Your task to perform on an android device: clear all cookies in the chrome app Image 0: 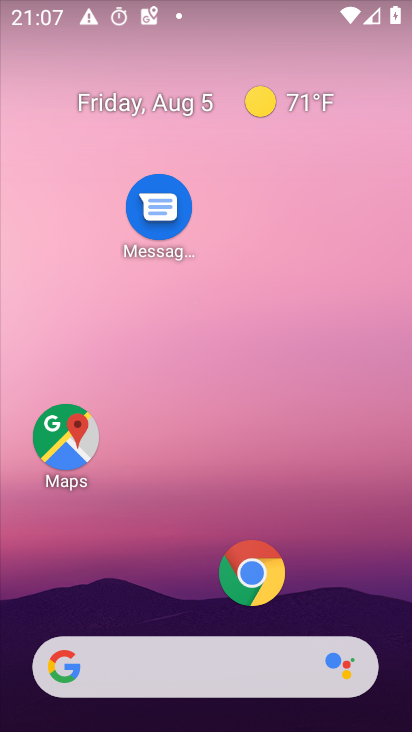
Step 0: press home button
Your task to perform on an android device: clear all cookies in the chrome app Image 1: 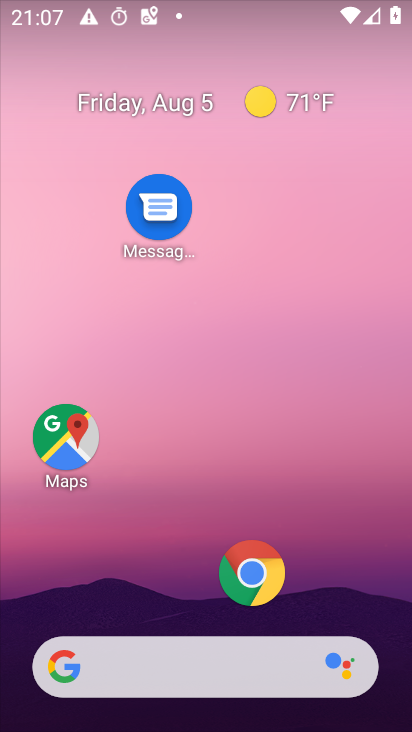
Step 1: drag from (195, 603) to (245, 16)
Your task to perform on an android device: clear all cookies in the chrome app Image 2: 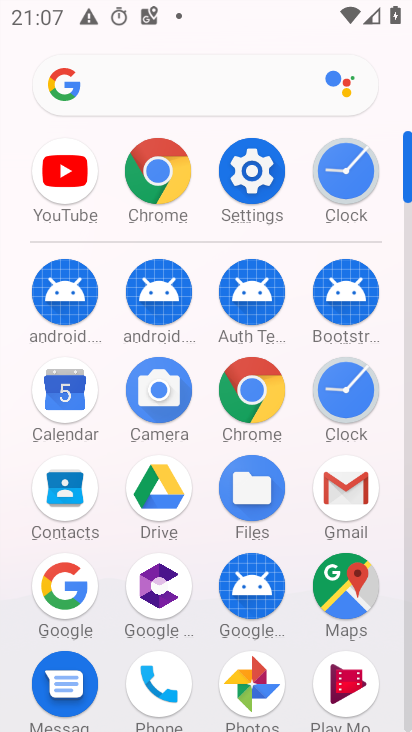
Step 2: click (151, 163)
Your task to perform on an android device: clear all cookies in the chrome app Image 3: 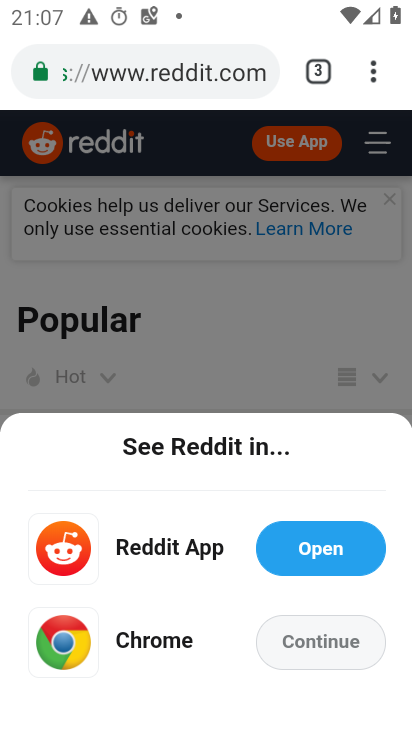
Step 3: click (324, 645)
Your task to perform on an android device: clear all cookies in the chrome app Image 4: 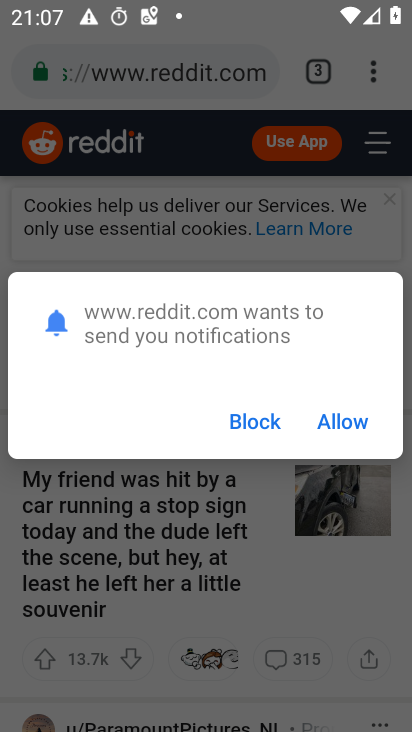
Step 4: click (346, 425)
Your task to perform on an android device: clear all cookies in the chrome app Image 5: 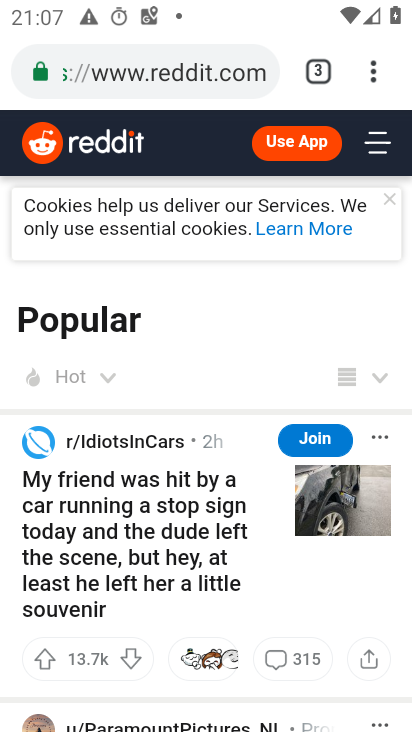
Step 5: click (370, 66)
Your task to perform on an android device: clear all cookies in the chrome app Image 6: 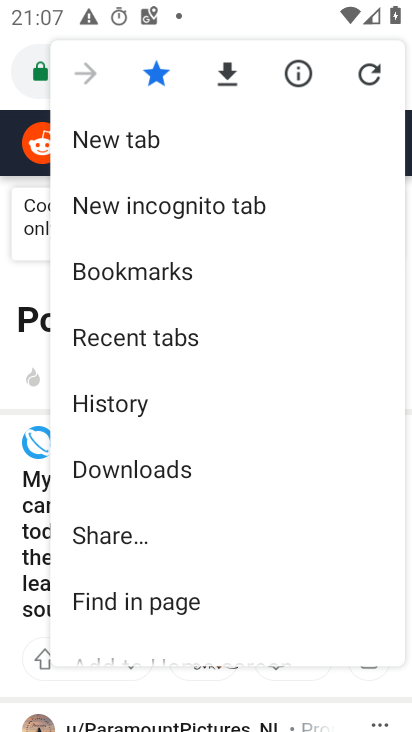
Step 6: click (155, 398)
Your task to perform on an android device: clear all cookies in the chrome app Image 7: 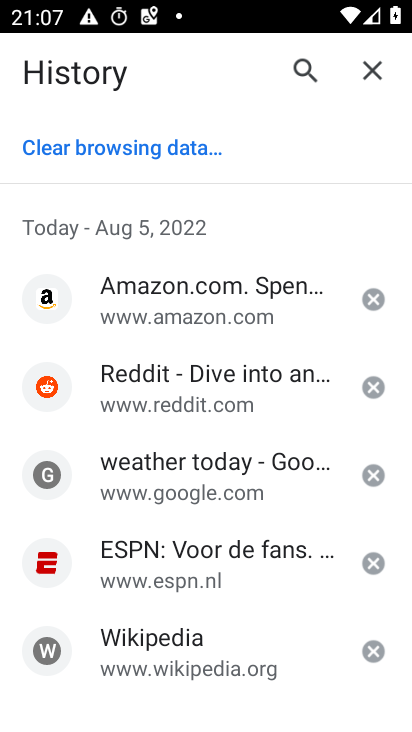
Step 7: click (134, 147)
Your task to perform on an android device: clear all cookies in the chrome app Image 8: 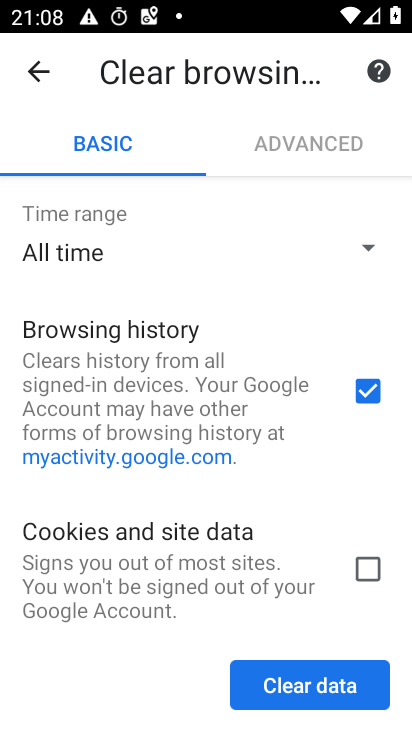
Step 8: click (369, 390)
Your task to perform on an android device: clear all cookies in the chrome app Image 9: 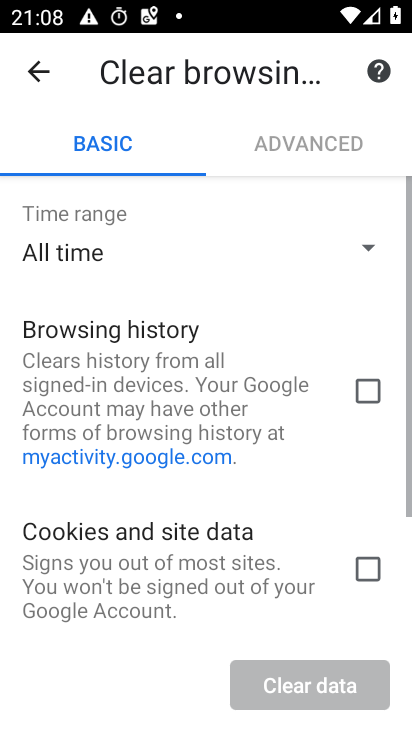
Step 9: click (366, 565)
Your task to perform on an android device: clear all cookies in the chrome app Image 10: 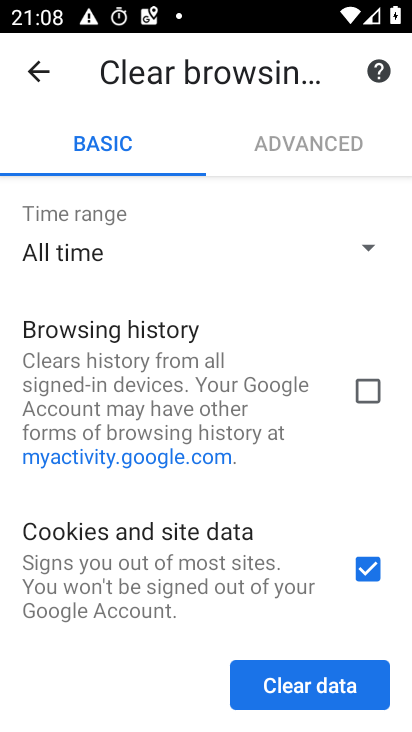
Step 10: click (312, 680)
Your task to perform on an android device: clear all cookies in the chrome app Image 11: 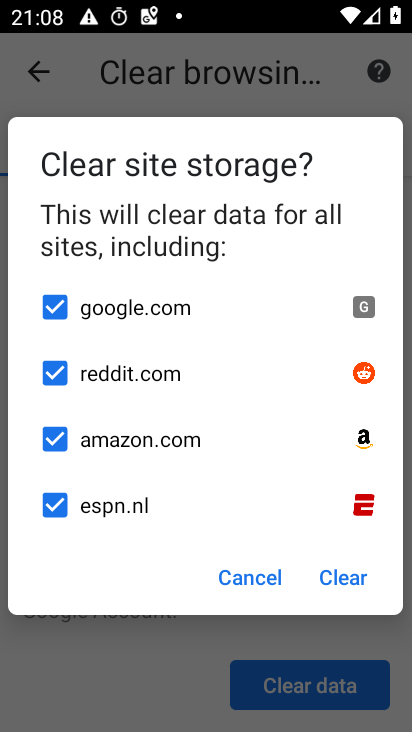
Step 11: click (342, 575)
Your task to perform on an android device: clear all cookies in the chrome app Image 12: 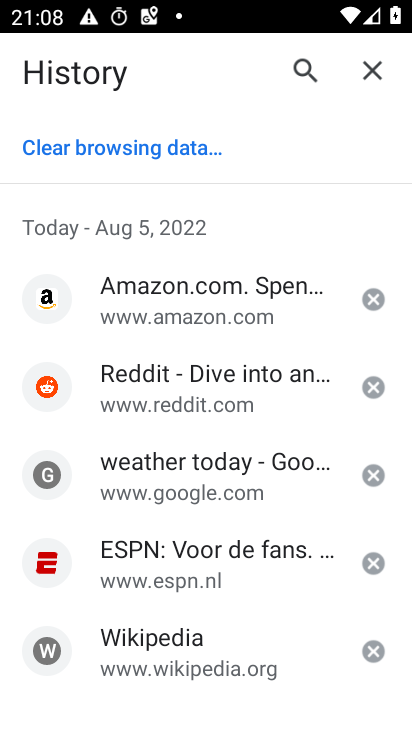
Step 12: task complete